Your task to perform on an android device: Open Wikipedia Image 0: 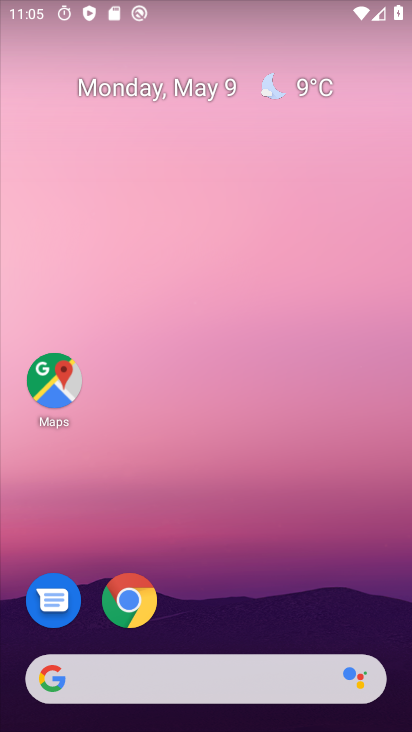
Step 0: click (148, 611)
Your task to perform on an android device: Open Wikipedia Image 1: 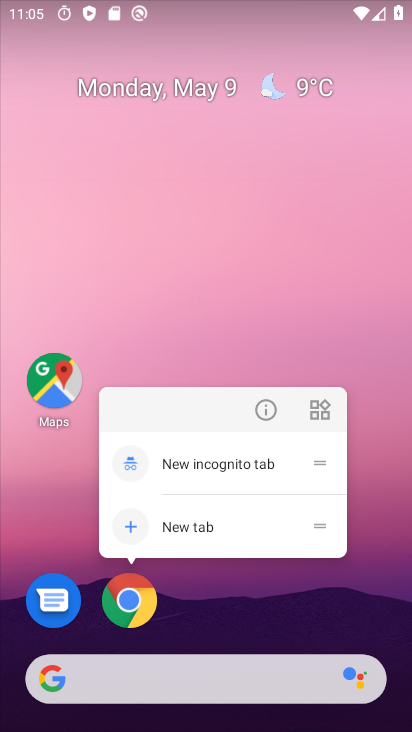
Step 1: click (141, 601)
Your task to perform on an android device: Open Wikipedia Image 2: 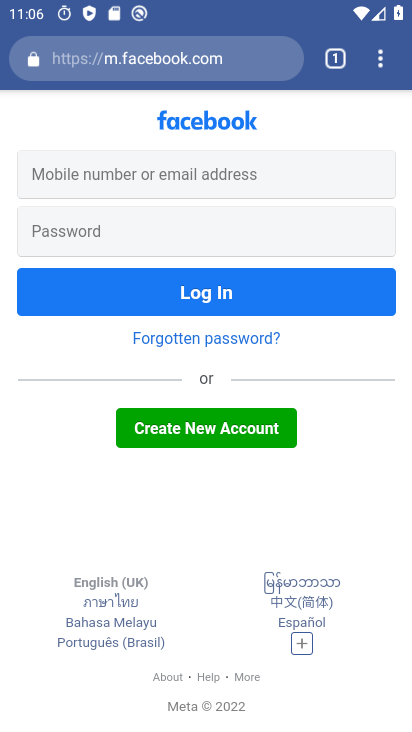
Step 2: click (340, 55)
Your task to perform on an android device: Open Wikipedia Image 3: 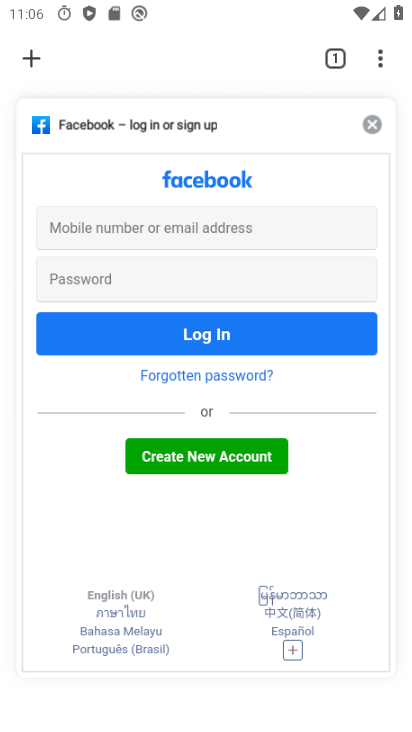
Step 3: click (28, 64)
Your task to perform on an android device: Open Wikipedia Image 4: 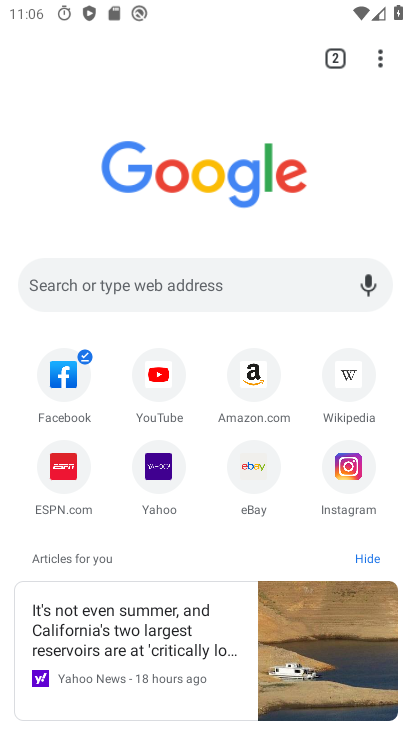
Step 4: click (361, 379)
Your task to perform on an android device: Open Wikipedia Image 5: 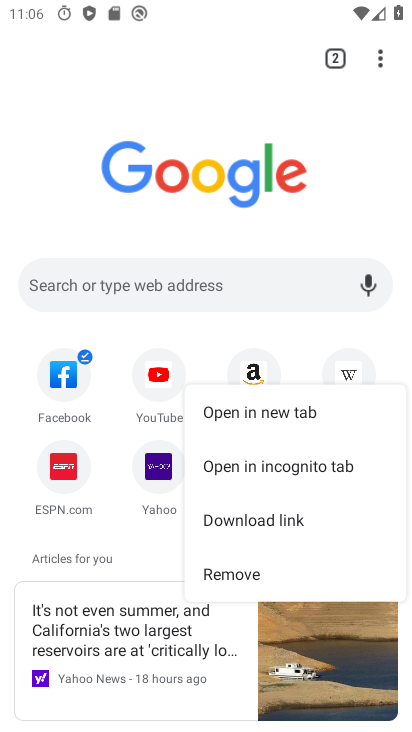
Step 5: click (335, 370)
Your task to perform on an android device: Open Wikipedia Image 6: 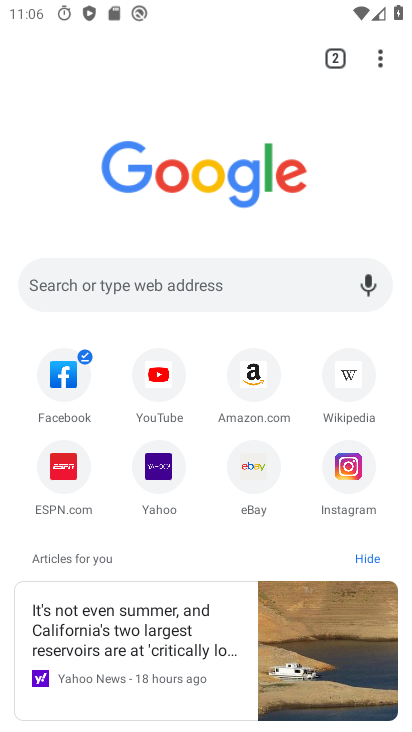
Step 6: click (348, 386)
Your task to perform on an android device: Open Wikipedia Image 7: 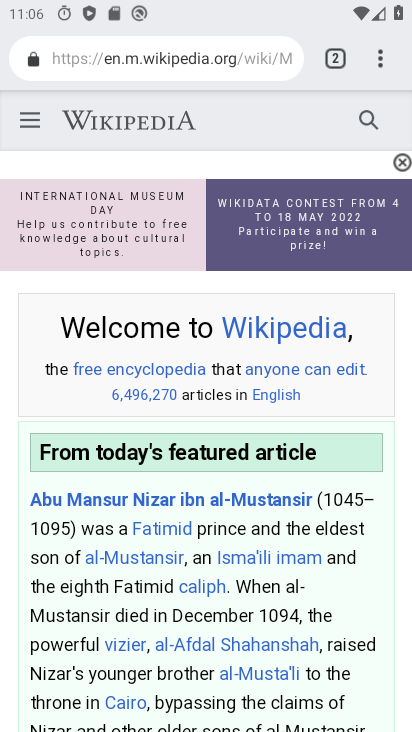
Step 7: task complete